Your task to perform on an android device: Go to display settings Image 0: 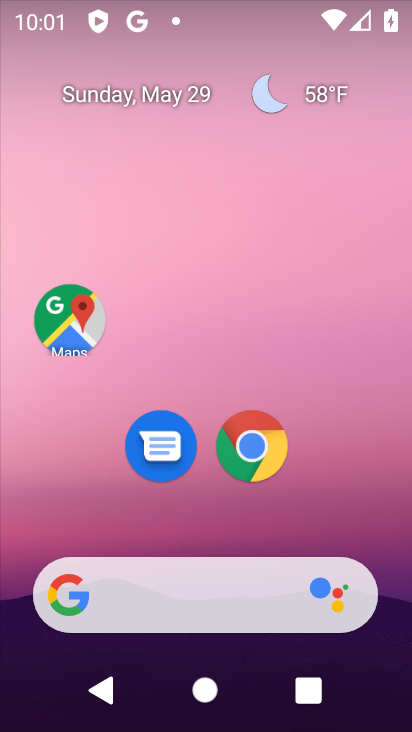
Step 0: drag from (278, 325) to (145, 5)
Your task to perform on an android device: Go to display settings Image 1: 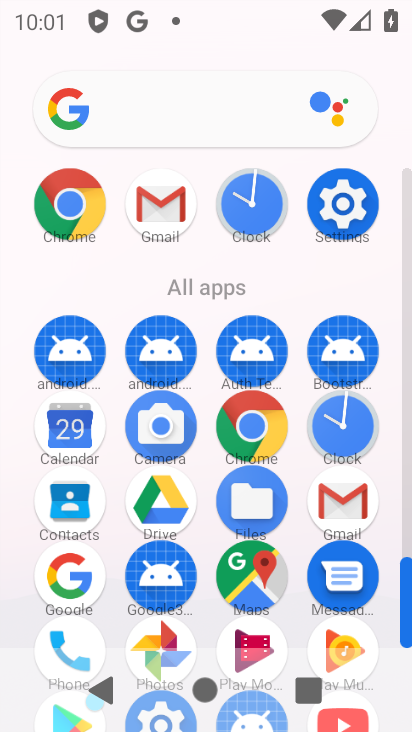
Step 1: drag from (13, 517) to (0, 159)
Your task to perform on an android device: Go to display settings Image 2: 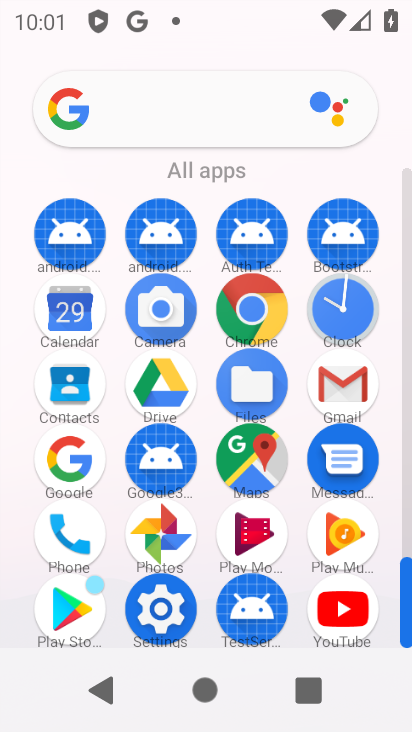
Step 2: click (161, 609)
Your task to perform on an android device: Go to display settings Image 3: 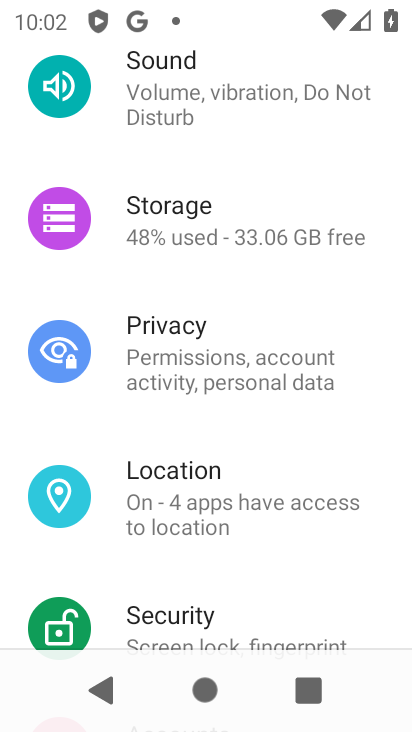
Step 3: drag from (322, 540) to (308, 92)
Your task to perform on an android device: Go to display settings Image 4: 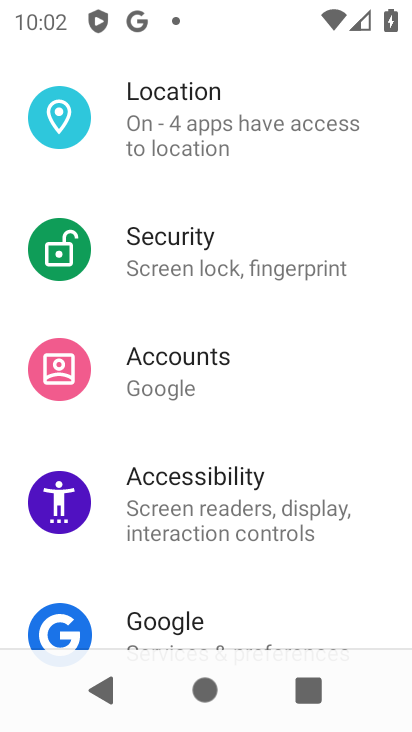
Step 4: drag from (287, 560) to (291, 150)
Your task to perform on an android device: Go to display settings Image 5: 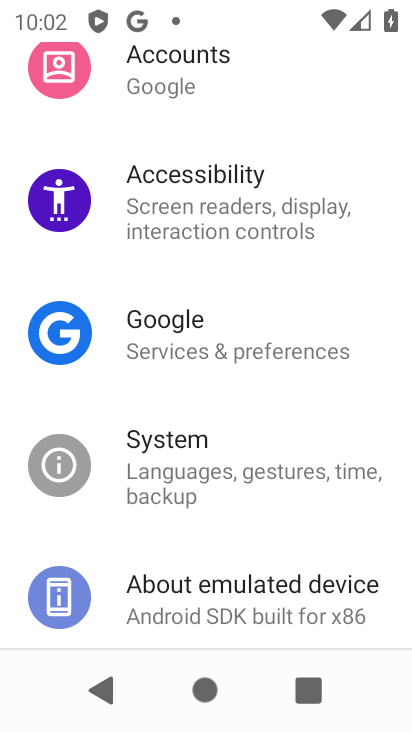
Step 5: drag from (295, 159) to (292, 588)
Your task to perform on an android device: Go to display settings Image 6: 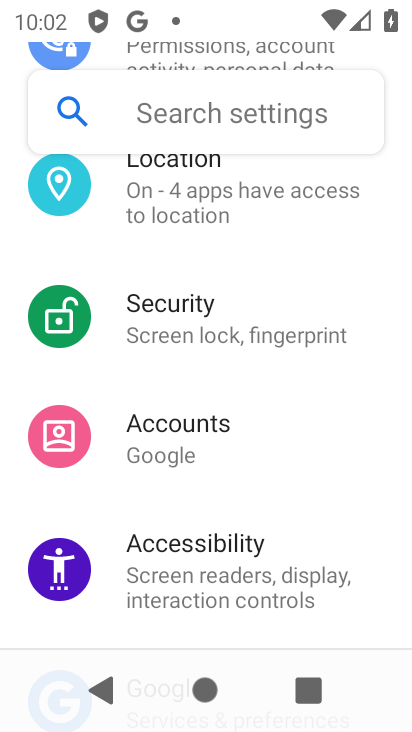
Step 6: drag from (313, 191) to (313, 523)
Your task to perform on an android device: Go to display settings Image 7: 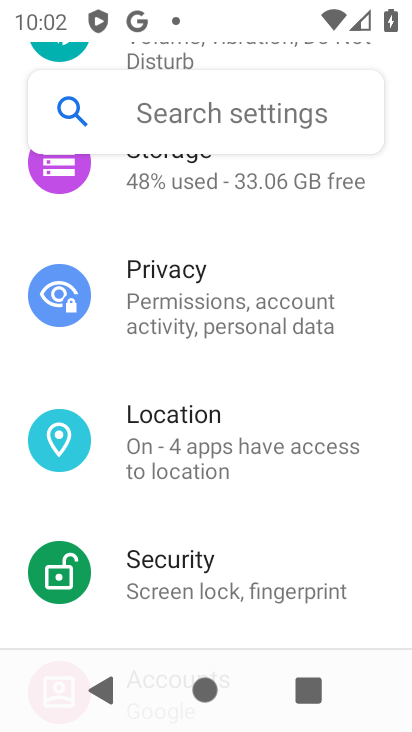
Step 7: drag from (339, 306) to (317, 561)
Your task to perform on an android device: Go to display settings Image 8: 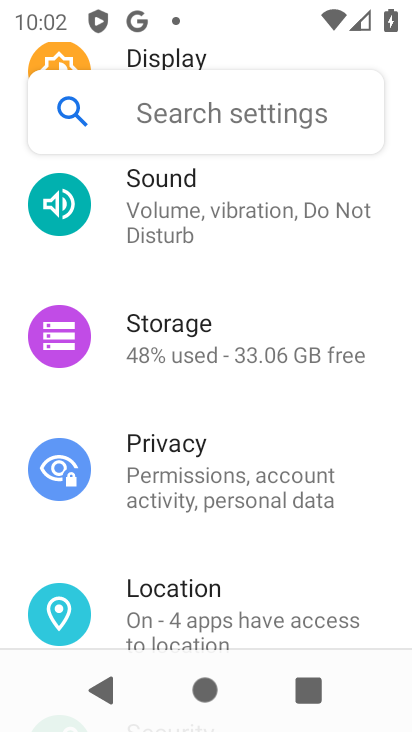
Step 8: drag from (297, 192) to (290, 526)
Your task to perform on an android device: Go to display settings Image 9: 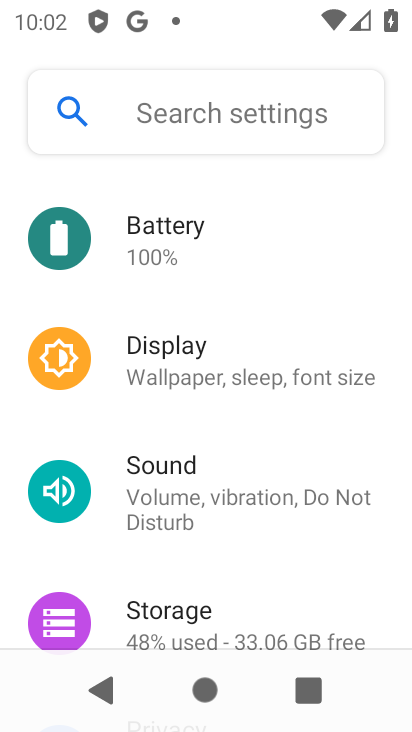
Step 9: click (202, 363)
Your task to perform on an android device: Go to display settings Image 10: 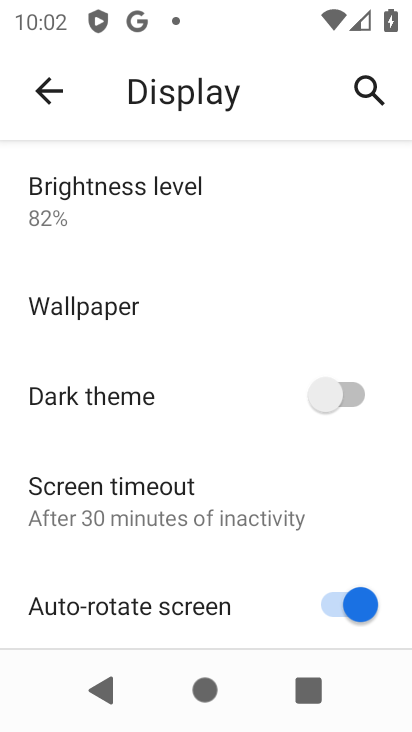
Step 10: drag from (186, 470) to (188, 228)
Your task to perform on an android device: Go to display settings Image 11: 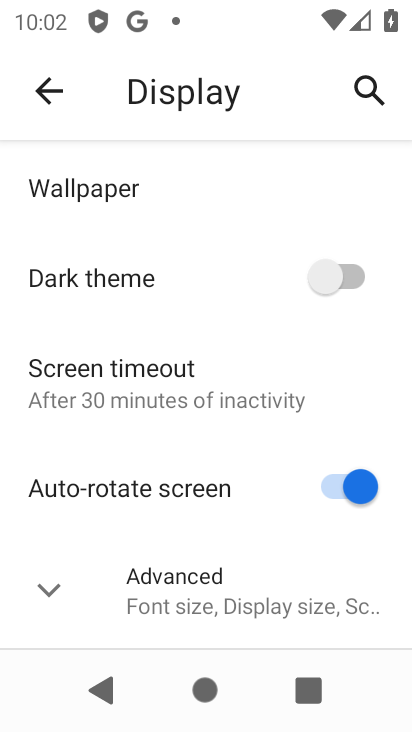
Step 11: drag from (207, 431) to (183, 215)
Your task to perform on an android device: Go to display settings Image 12: 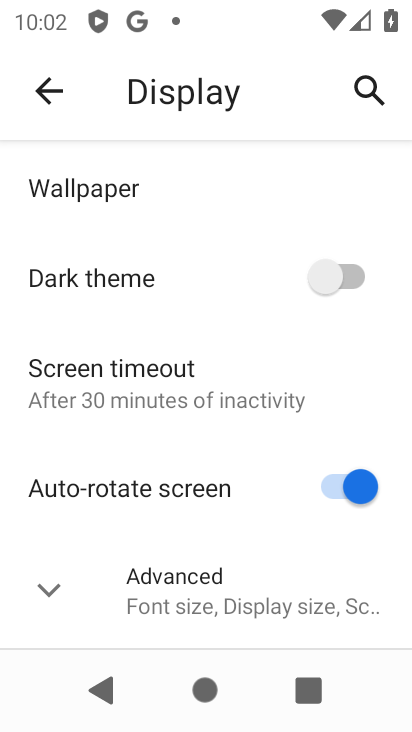
Step 12: drag from (145, 496) to (159, 394)
Your task to perform on an android device: Go to display settings Image 13: 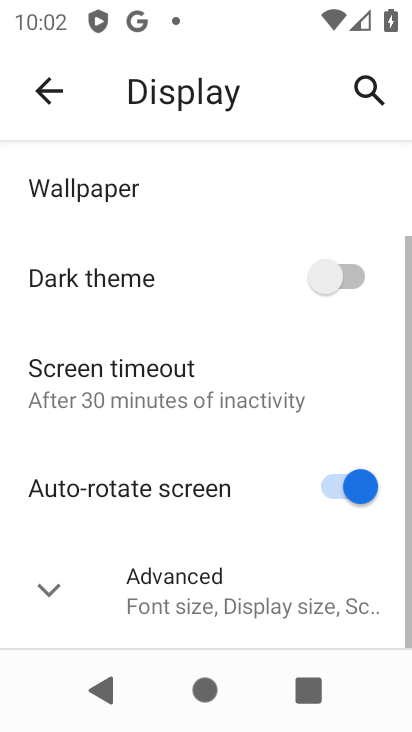
Step 13: click (39, 592)
Your task to perform on an android device: Go to display settings Image 14: 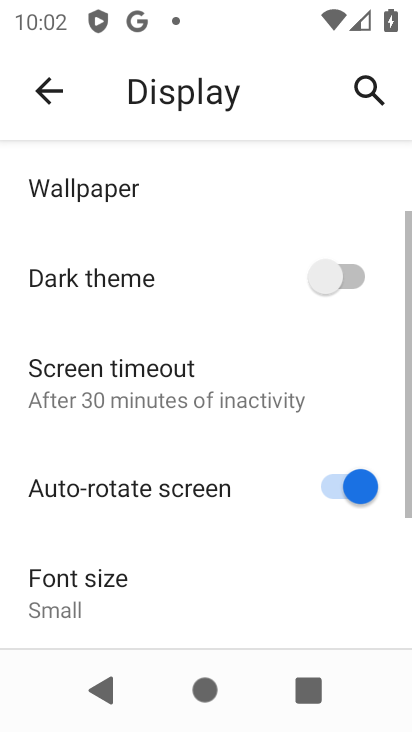
Step 14: task complete